Your task to perform on an android device: Play the last video I watched on Youtube Image 0: 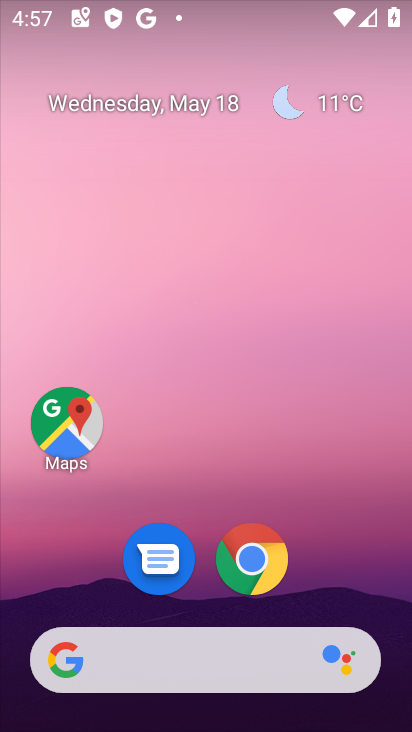
Step 0: drag from (184, 619) to (271, 115)
Your task to perform on an android device: Play the last video I watched on Youtube Image 1: 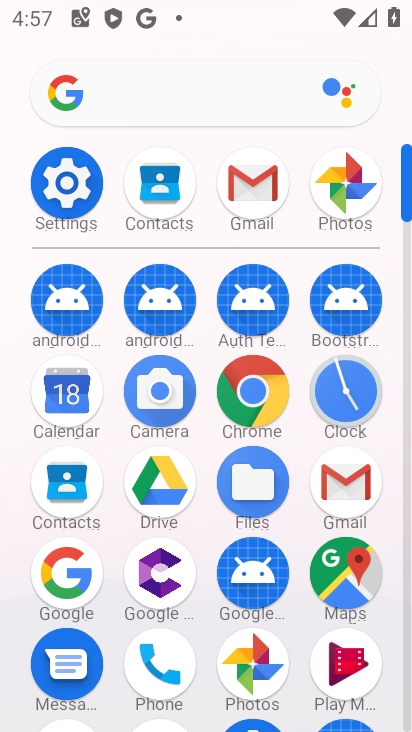
Step 1: drag from (215, 657) to (268, 161)
Your task to perform on an android device: Play the last video I watched on Youtube Image 2: 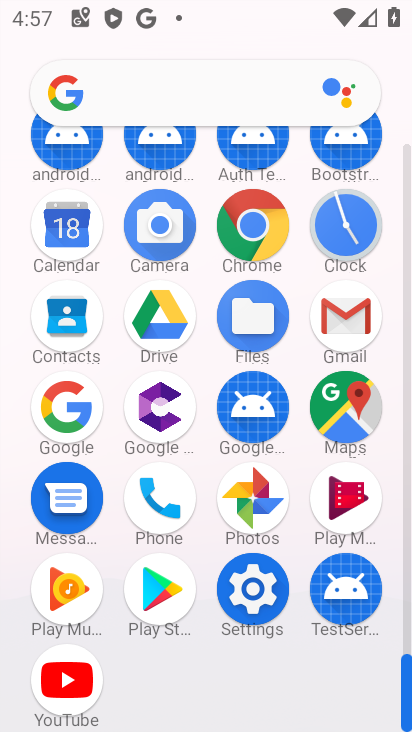
Step 2: click (66, 681)
Your task to perform on an android device: Play the last video I watched on Youtube Image 3: 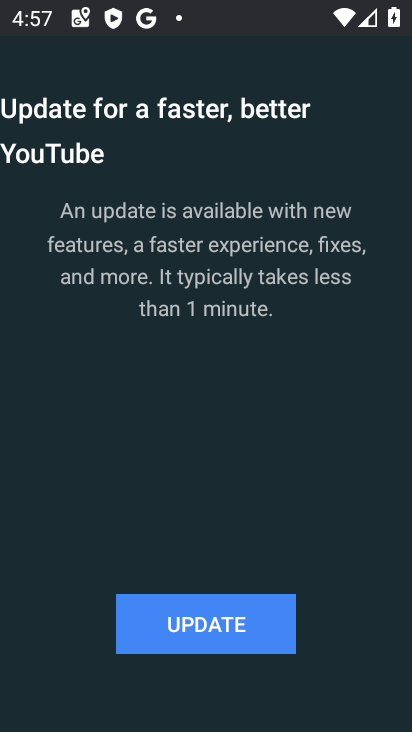
Step 3: click (205, 618)
Your task to perform on an android device: Play the last video I watched on Youtube Image 4: 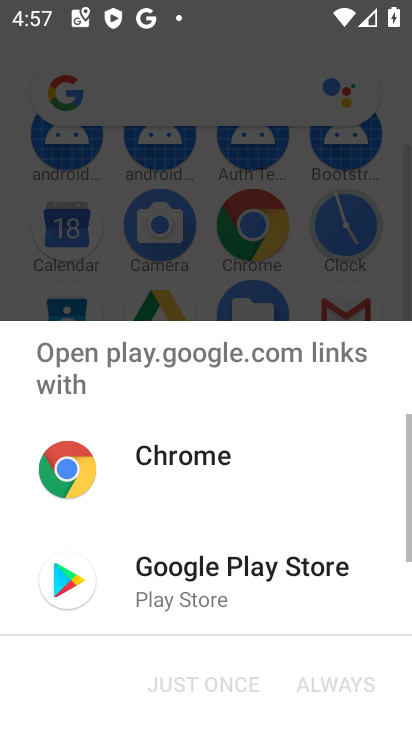
Step 4: click (202, 588)
Your task to perform on an android device: Play the last video I watched on Youtube Image 5: 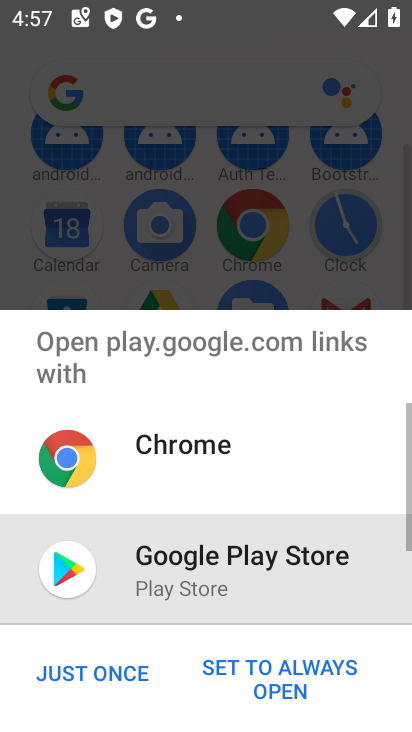
Step 5: click (65, 681)
Your task to perform on an android device: Play the last video I watched on Youtube Image 6: 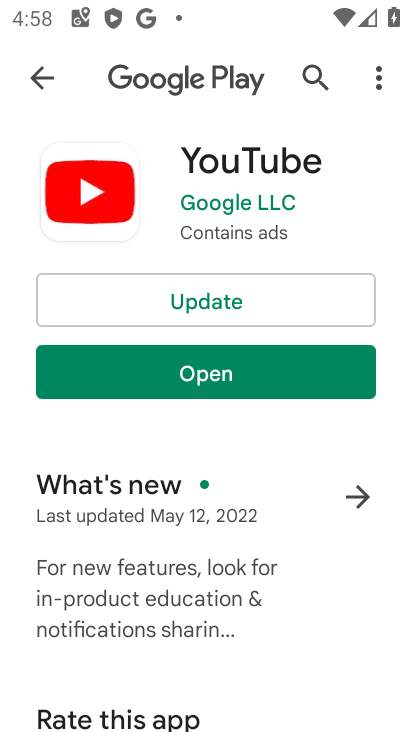
Step 6: click (216, 297)
Your task to perform on an android device: Play the last video I watched on Youtube Image 7: 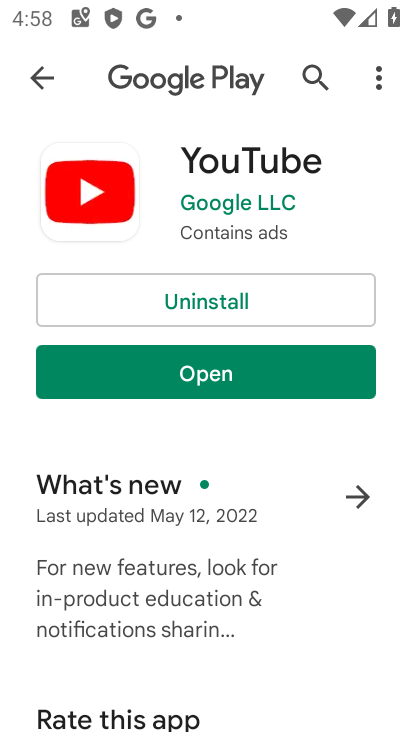
Step 7: click (269, 383)
Your task to perform on an android device: Play the last video I watched on Youtube Image 8: 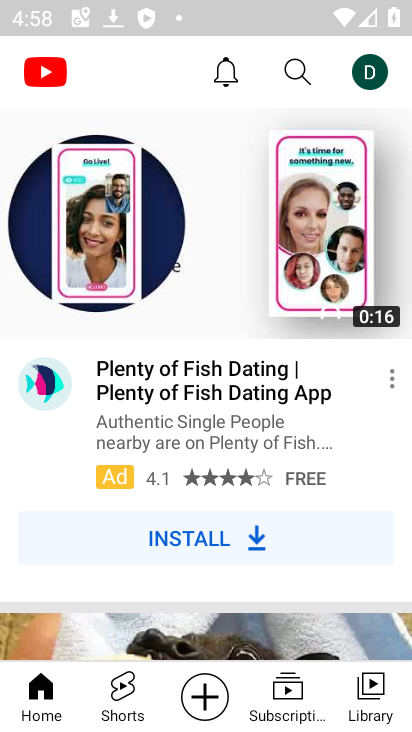
Step 8: click (378, 694)
Your task to perform on an android device: Play the last video I watched on Youtube Image 9: 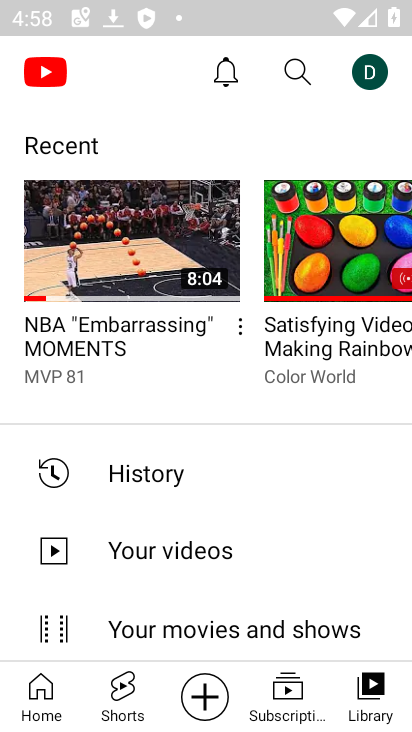
Step 9: drag from (171, 602) to (207, 380)
Your task to perform on an android device: Play the last video I watched on Youtube Image 10: 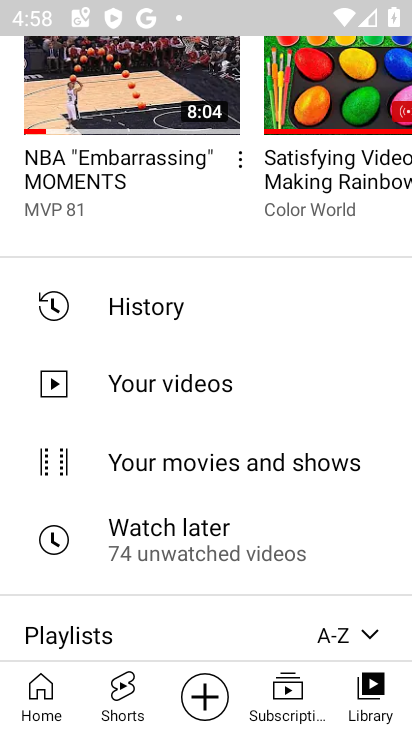
Step 10: click (165, 94)
Your task to perform on an android device: Play the last video I watched on Youtube Image 11: 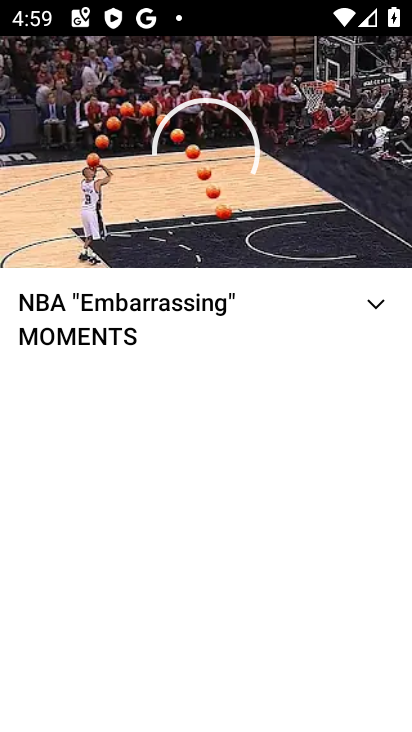
Step 11: task complete